Your task to perform on an android device: Empty the shopping cart on costco.com. Add logitech g502 to the cart on costco.com, then select checkout. Image 0: 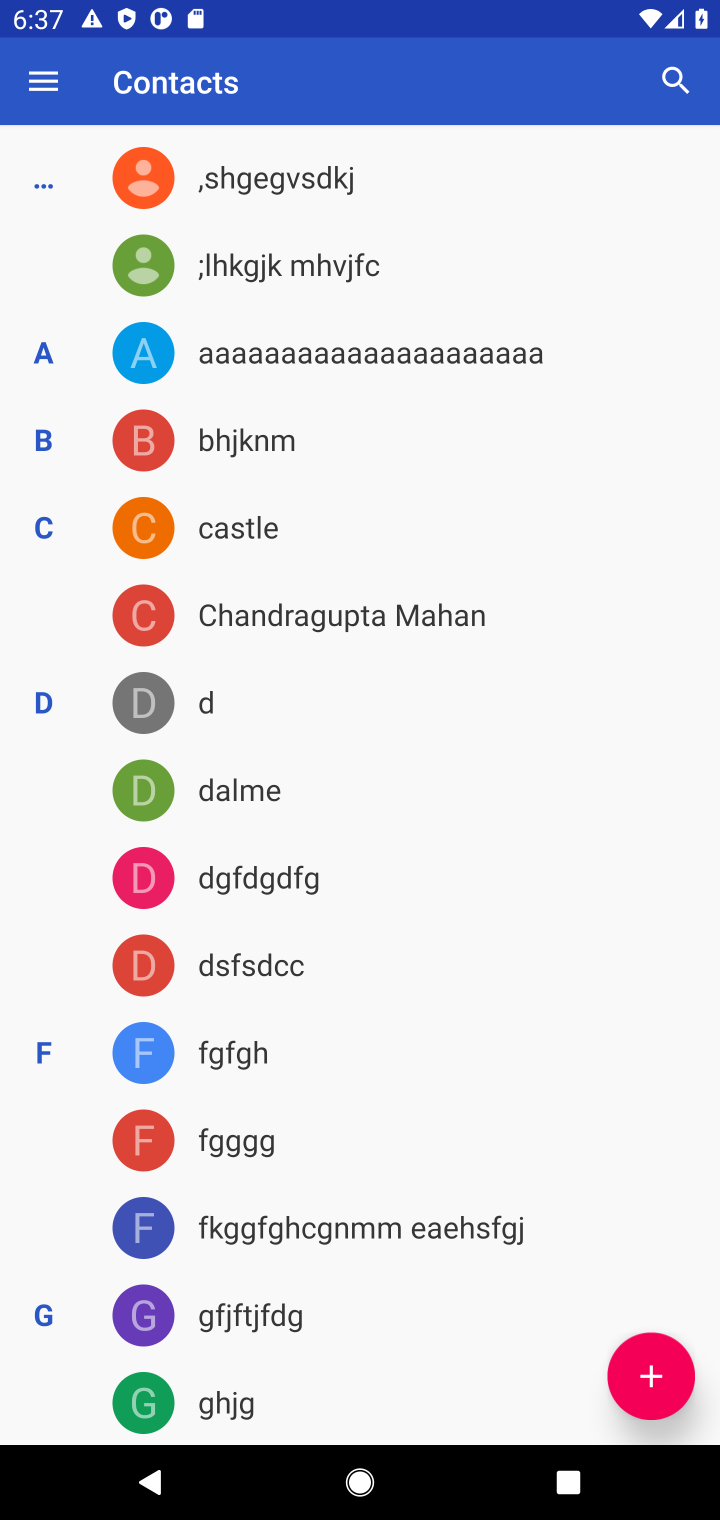
Step 0: press home button
Your task to perform on an android device: Empty the shopping cart on costco.com. Add logitech g502 to the cart on costco.com, then select checkout. Image 1: 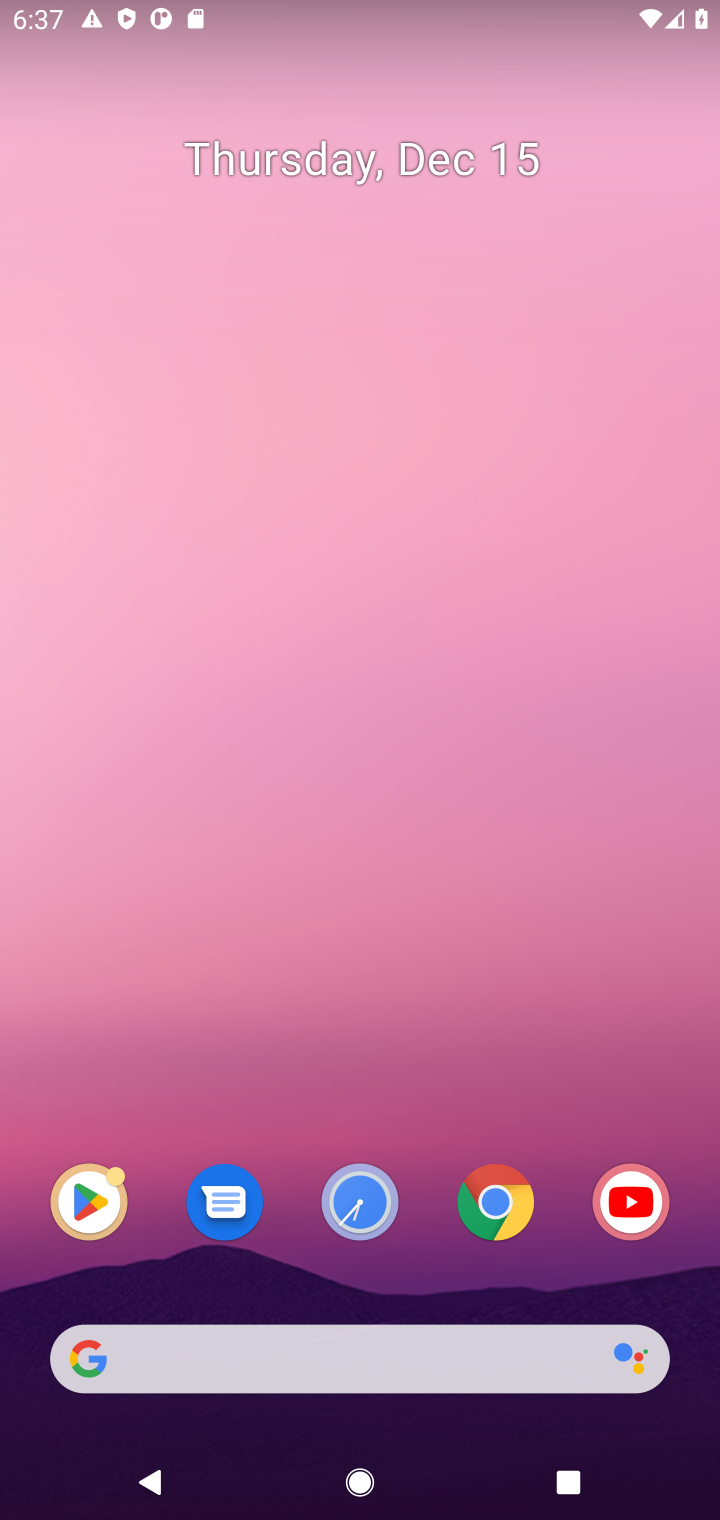
Step 1: click (496, 1207)
Your task to perform on an android device: Empty the shopping cart on costco.com. Add logitech g502 to the cart on costco.com, then select checkout. Image 2: 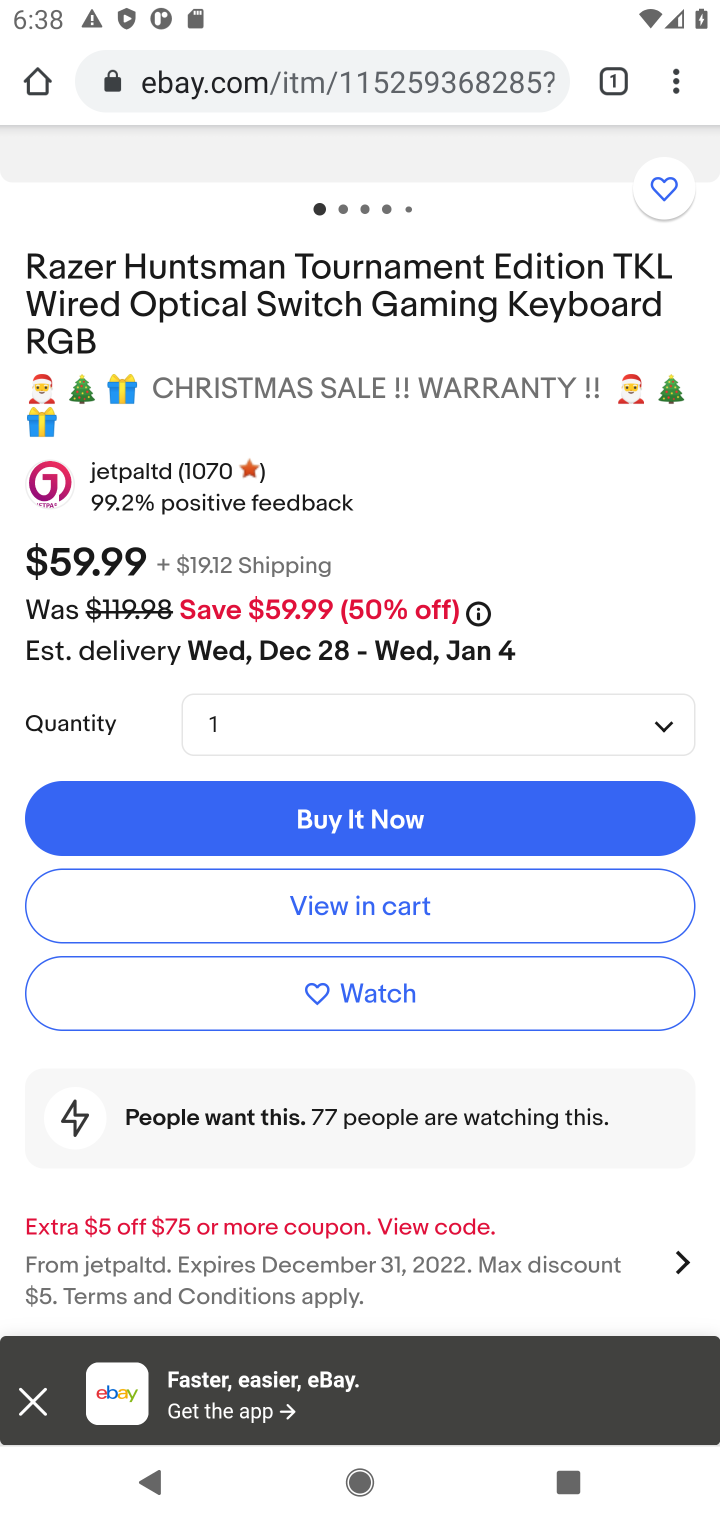
Step 2: click (259, 80)
Your task to perform on an android device: Empty the shopping cart on costco.com. Add logitech g502 to the cart on costco.com, then select checkout. Image 3: 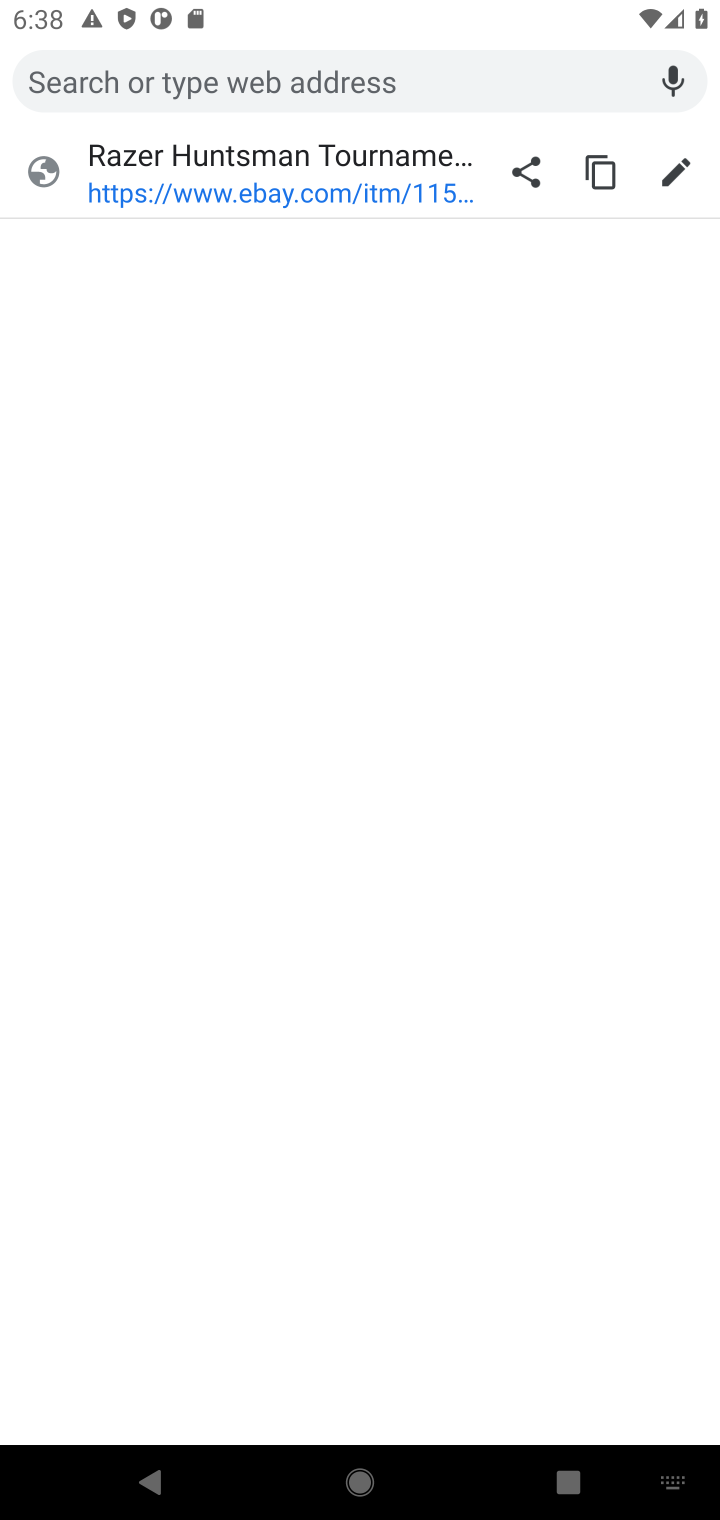
Step 3: type "costco.com"
Your task to perform on an android device: Empty the shopping cart on costco.com. Add logitech g502 to the cart on costco.com, then select checkout. Image 4: 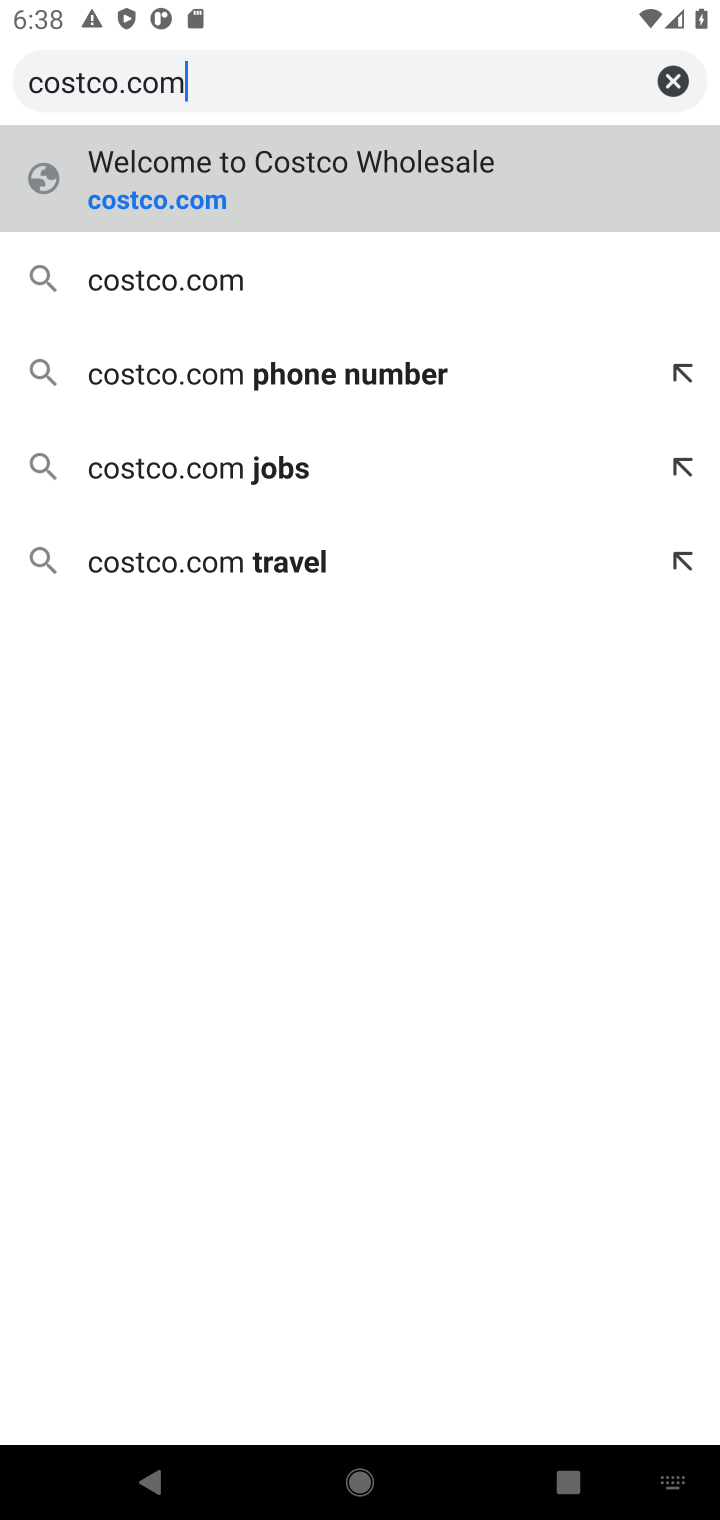
Step 4: click (177, 191)
Your task to perform on an android device: Empty the shopping cart on costco.com. Add logitech g502 to the cart on costco.com, then select checkout. Image 5: 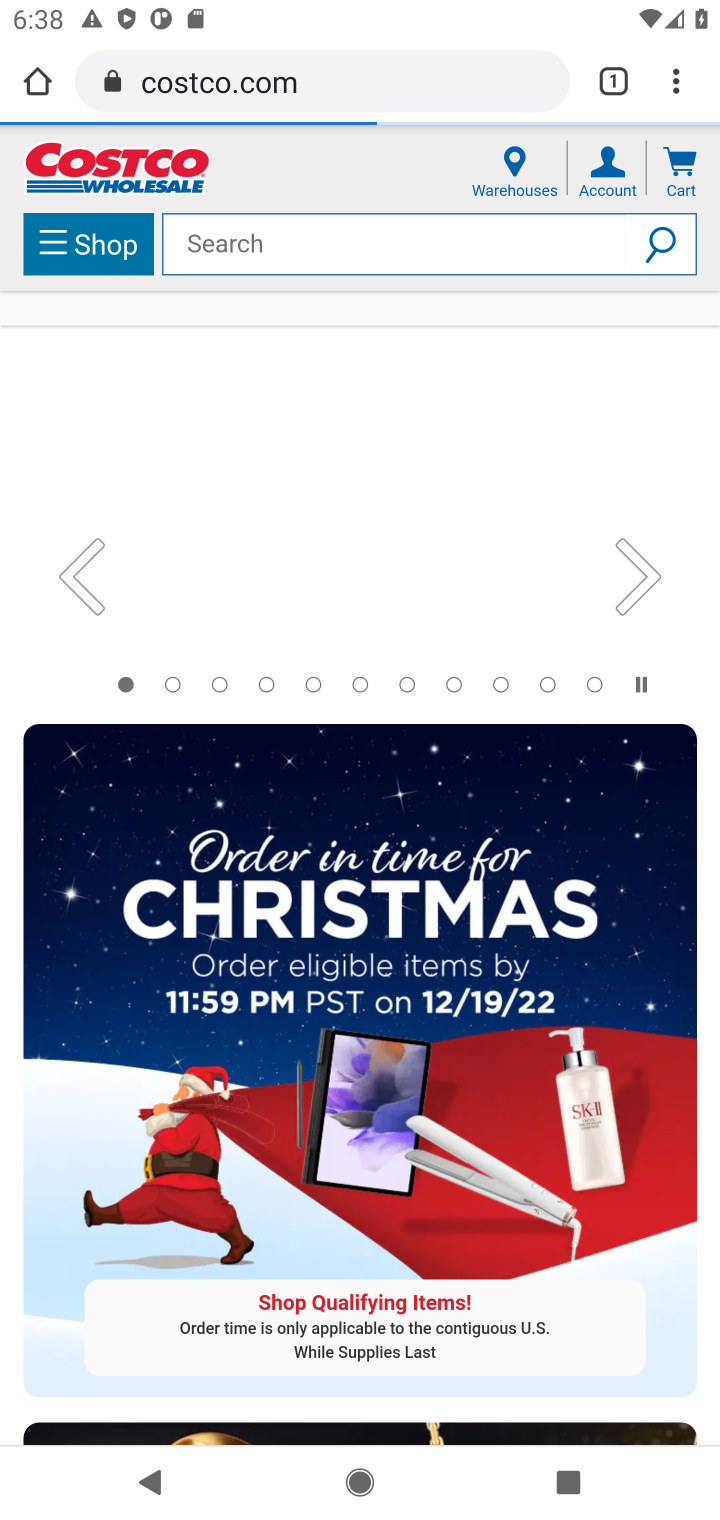
Step 5: click (677, 164)
Your task to perform on an android device: Empty the shopping cart on costco.com. Add logitech g502 to the cart on costco.com, then select checkout. Image 6: 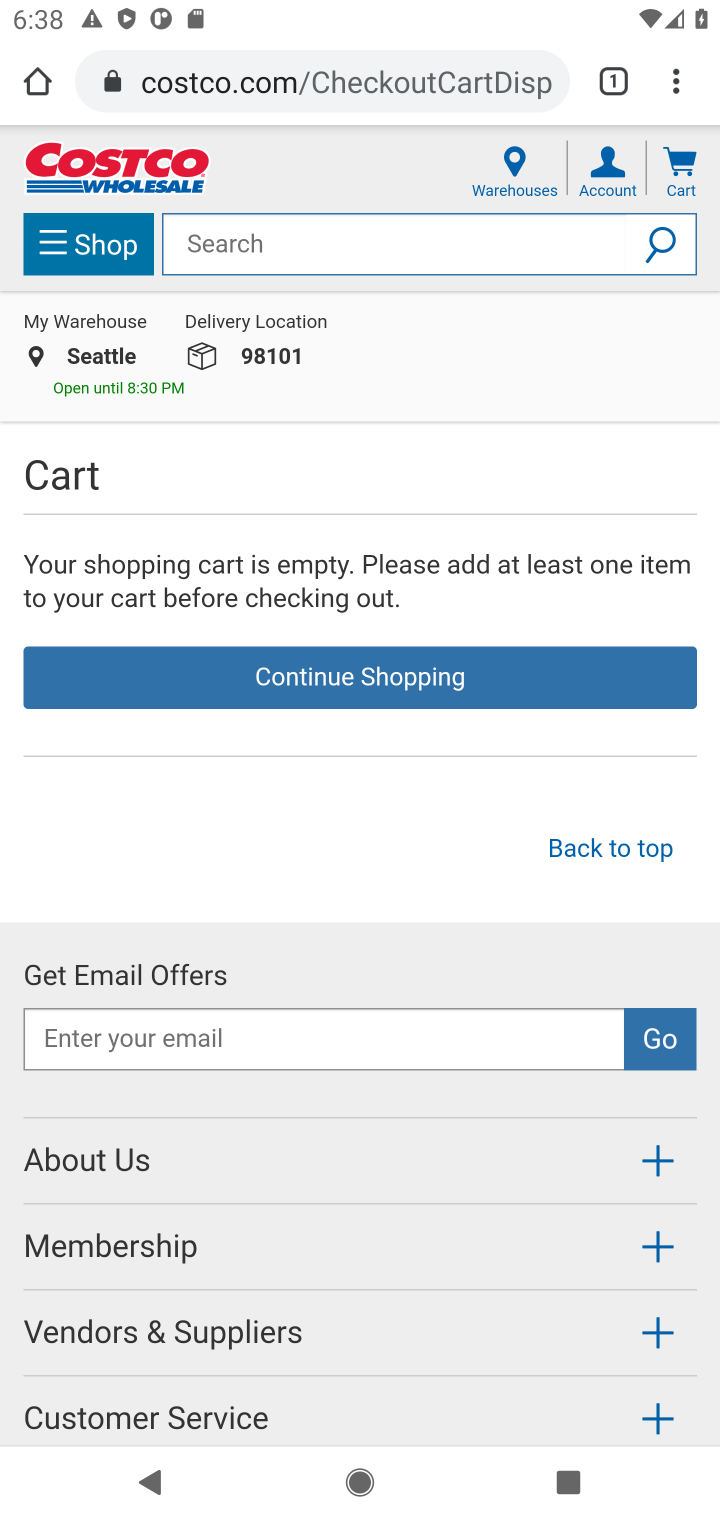
Step 6: click (264, 257)
Your task to perform on an android device: Empty the shopping cart on costco.com. Add logitech g502 to the cart on costco.com, then select checkout. Image 7: 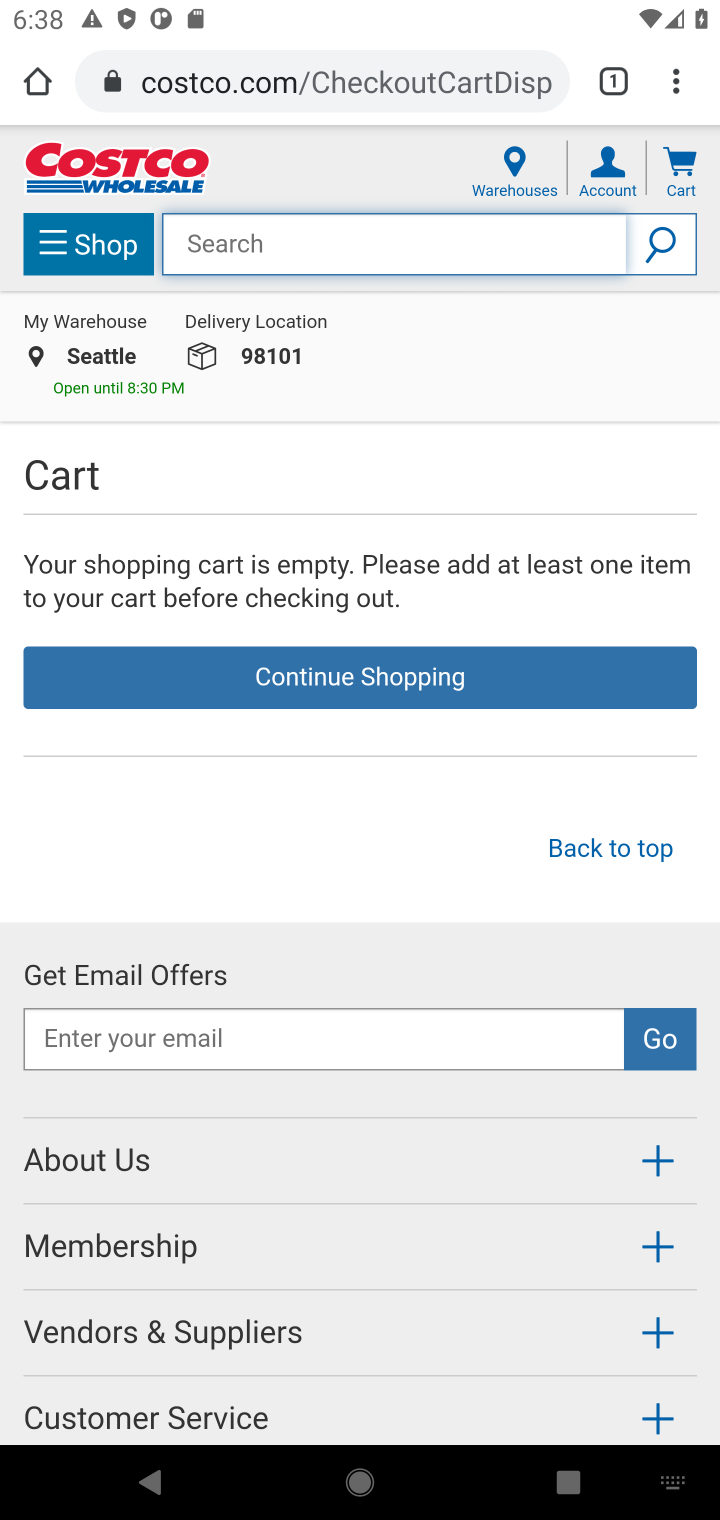
Step 7: type "logitech g502 "
Your task to perform on an android device: Empty the shopping cart on costco.com. Add logitech g502 to the cart on costco.com, then select checkout. Image 8: 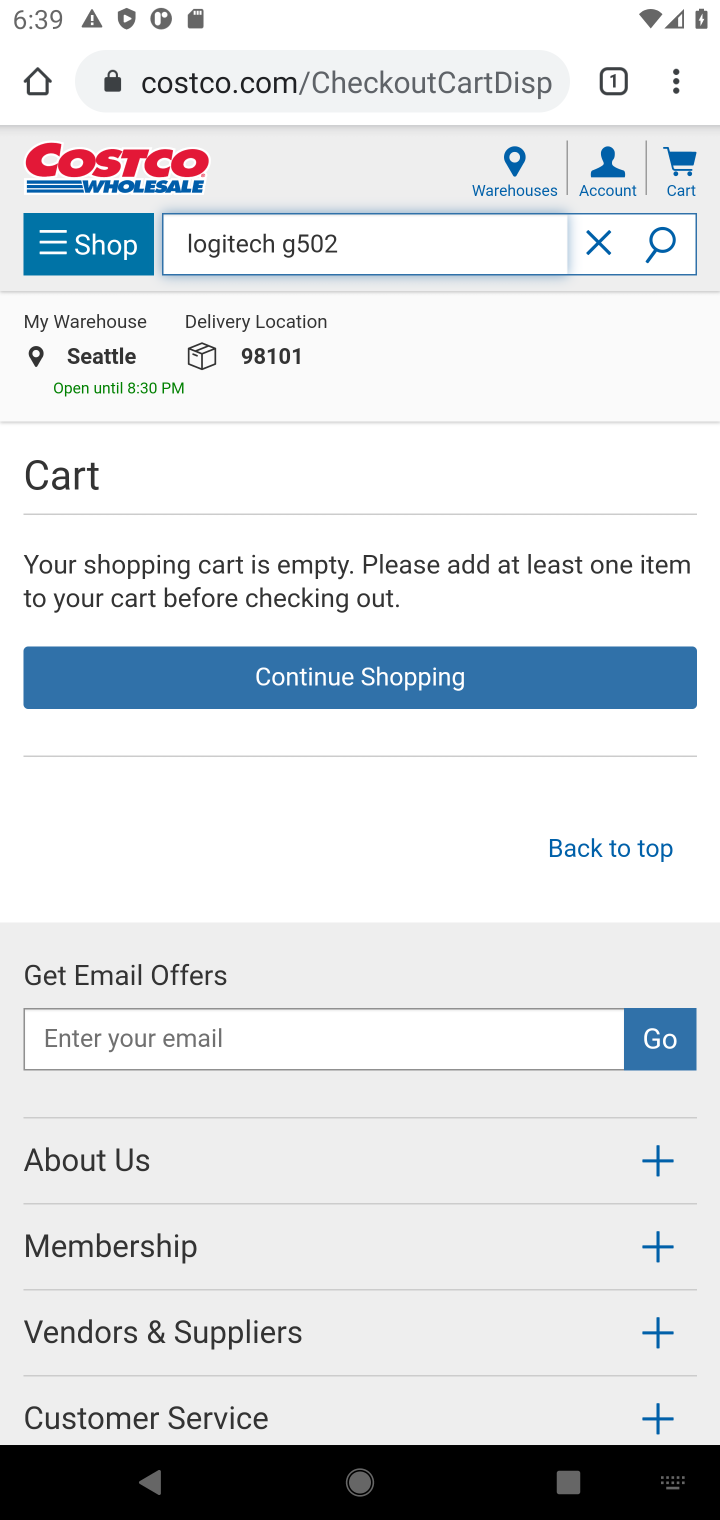
Step 8: click (660, 249)
Your task to perform on an android device: Empty the shopping cart on costco.com. Add logitech g502 to the cart on costco.com, then select checkout. Image 9: 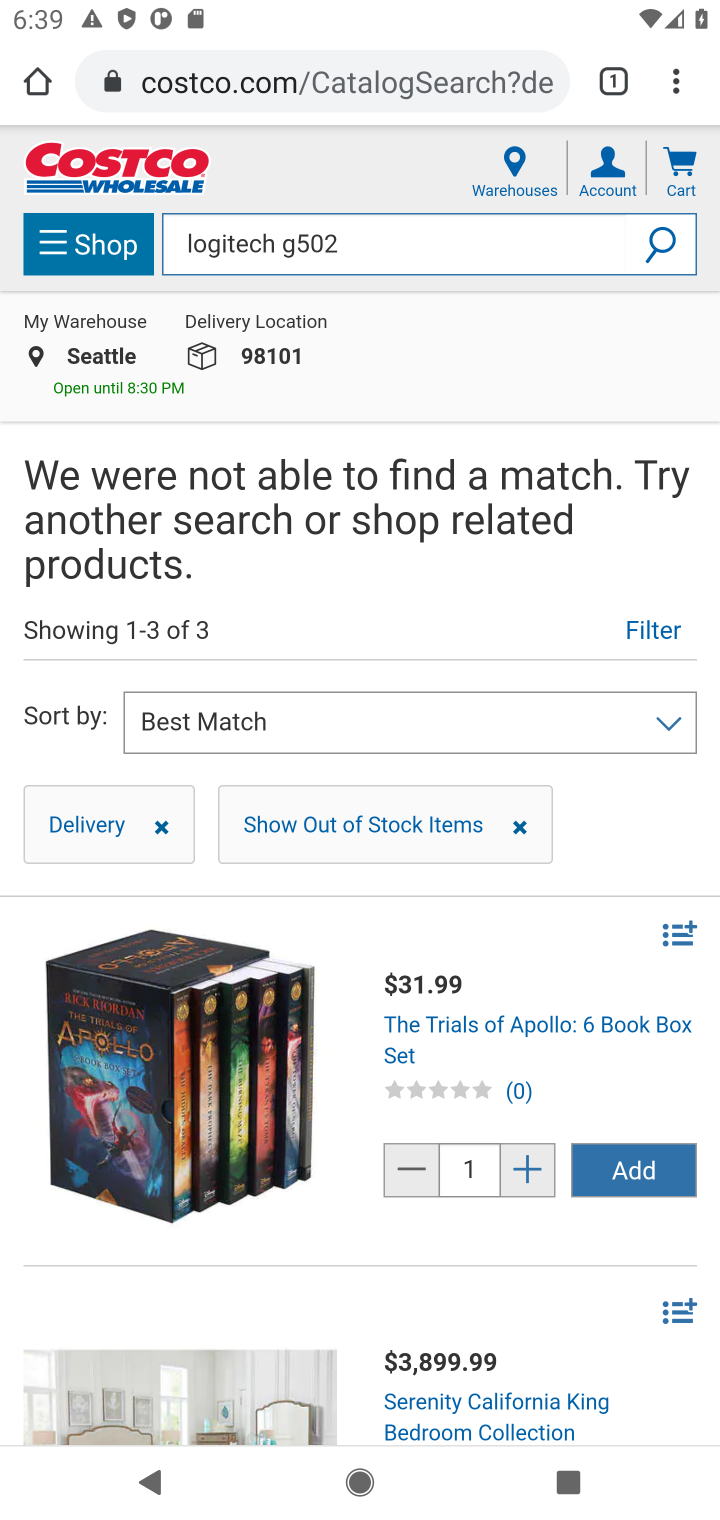
Step 9: task complete